Your task to perform on an android device: turn on translation in the chrome app Image 0: 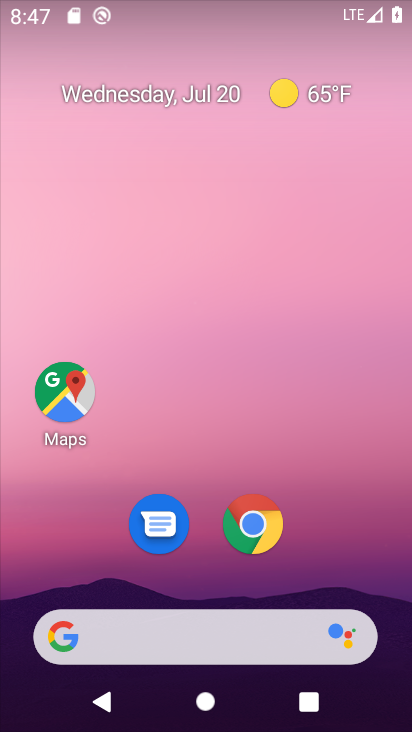
Step 0: click (269, 523)
Your task to perform on an android device: turn on translation in the chrome app Image 1: 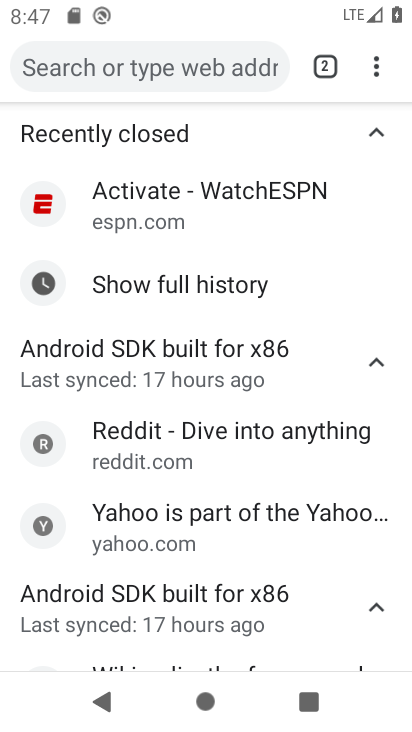
Step 1: click (374, 70)
Your task to perform on an android device: turn on translation in the chrome app Image 2: 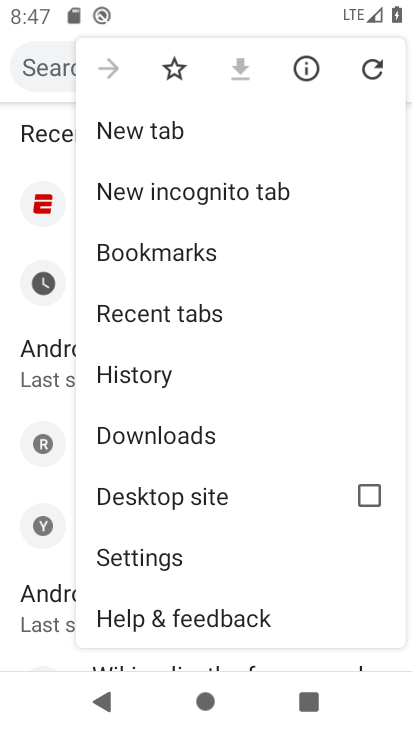
Step 2: drag from (236, 530) to (256, 255)
Your task to perform on an android device: turn on translation in the chrome app Image 3: 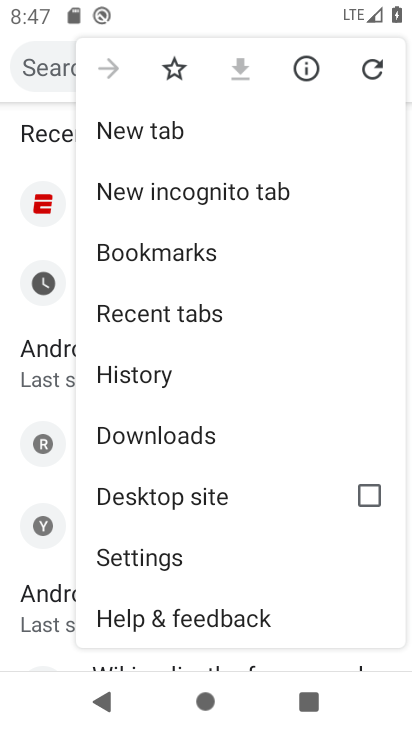
Step 3: click (155, 553)
Your task to perform on an android device: turn on translation in the chrome app Image 4: 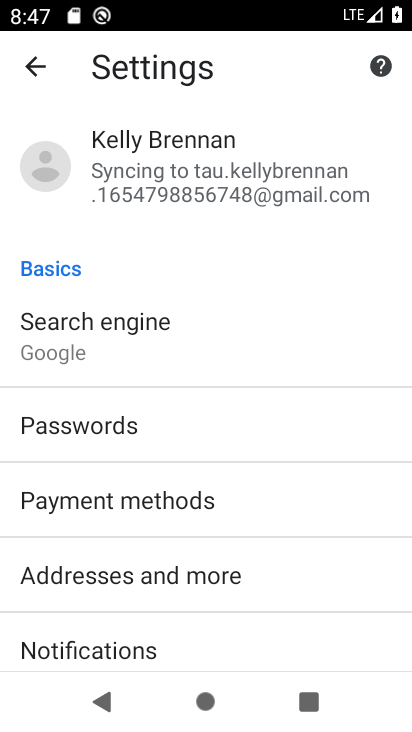
Step 4: drag from (209, 498) to (197, 156)
Your task to perform on an android device: turn on translation in the chrome app Image 5: 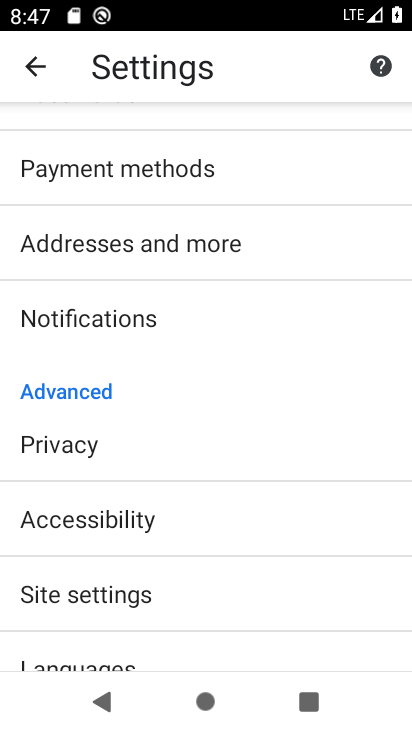
Step 5: drag from (207, 524) to (200, 242)
Your task to perform on an android device: turn on translation in the chrome app Image 6: 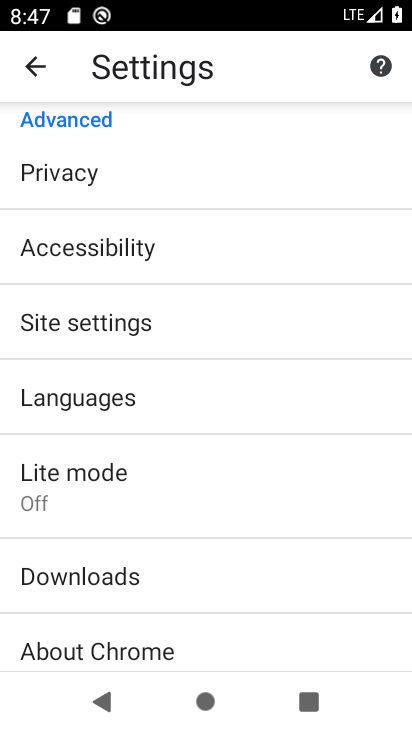
Step 6: click (184, 388)
Your task to perform on an android device: turn on translation in the chrome app Image 7: 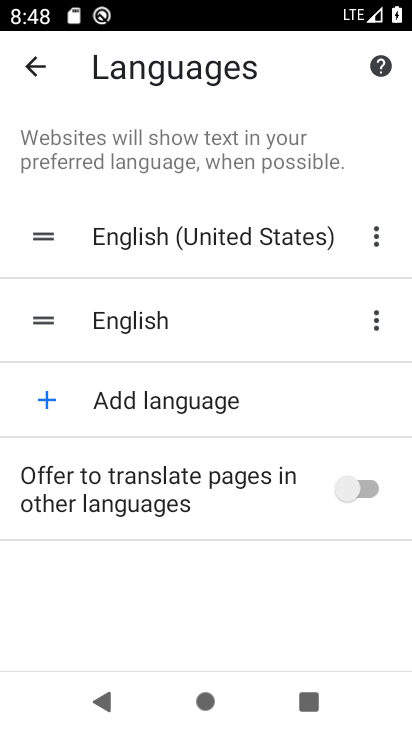
Step 7: click (357, 481)
Your task to perform on an android device: turn on translation in the chrome app Image 8: 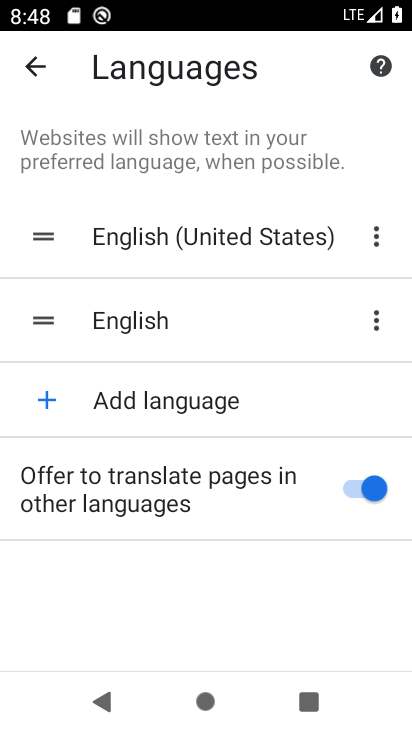
Step 8: task complete